Your task to perform on an android device: Open Amazon Image 0: 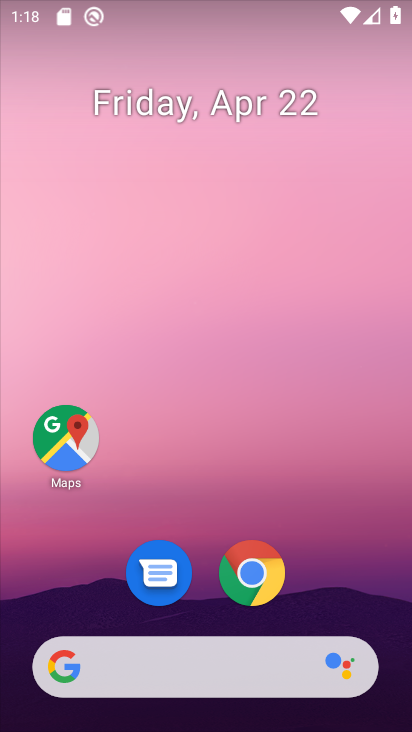
Step 0: click (243, 564)
Your task to perform on an android device: Open Amazon Image 1: 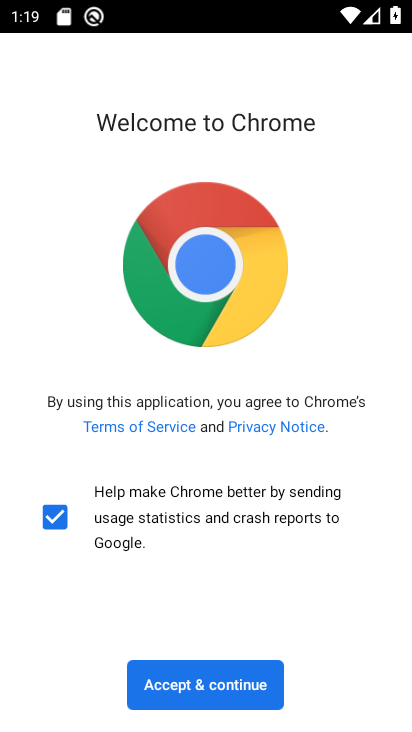
Step 1: click (185, 697)
Your task to perform on an android device: Open Amazon Image 2: 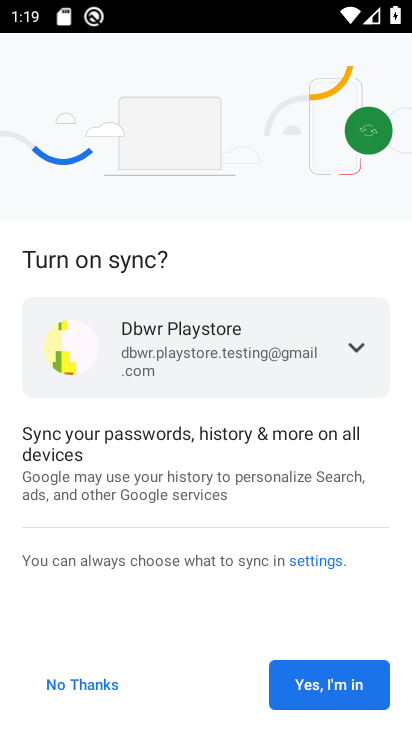
Step 2: click (296, 700)
Your task to perform on an android device: Open Amazon Image 3: 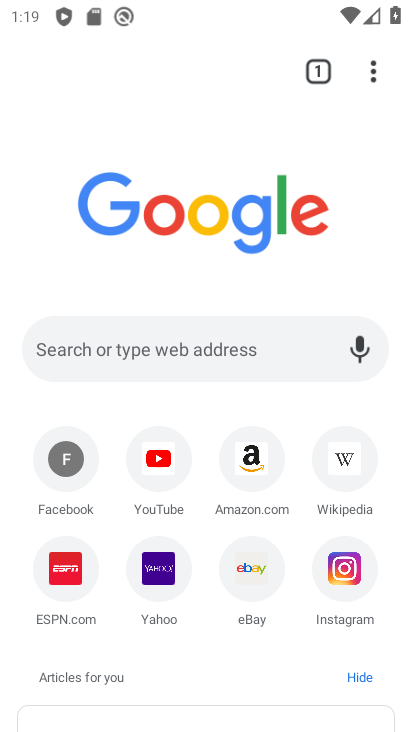
Step 3: click (247, 448)
Your task to perform on an android device: Open Amazon Image 4: 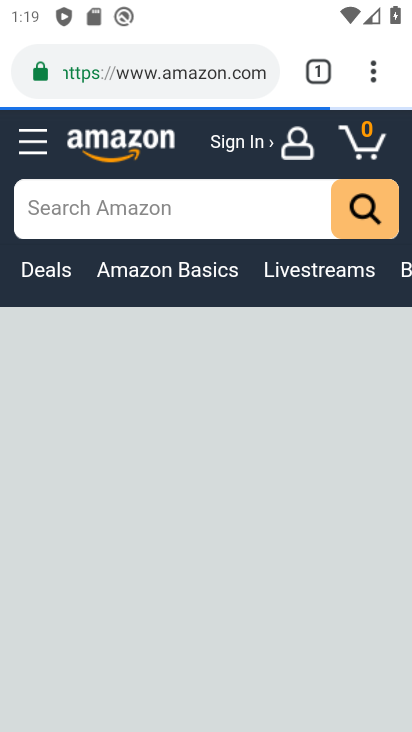
Step 4: task complete